Your task to perform on an android device: Open Youtube and go to the subscriptions tab Image 0: 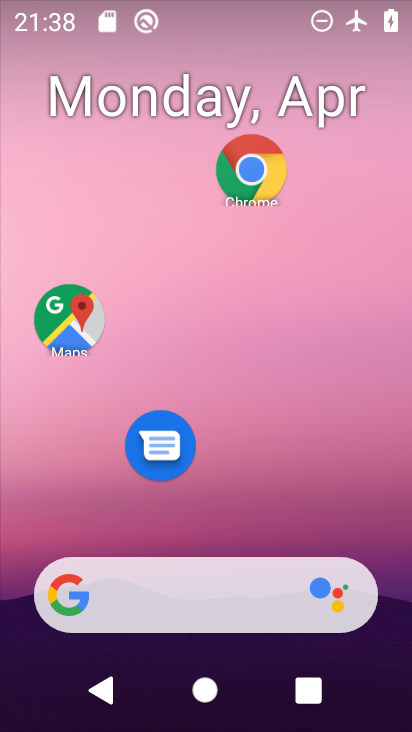
Step 0: drag from (220, 464) to (244, 119)
Your task to perform on an android device: Open Youtube and go to the subscriptions tab Image 1: 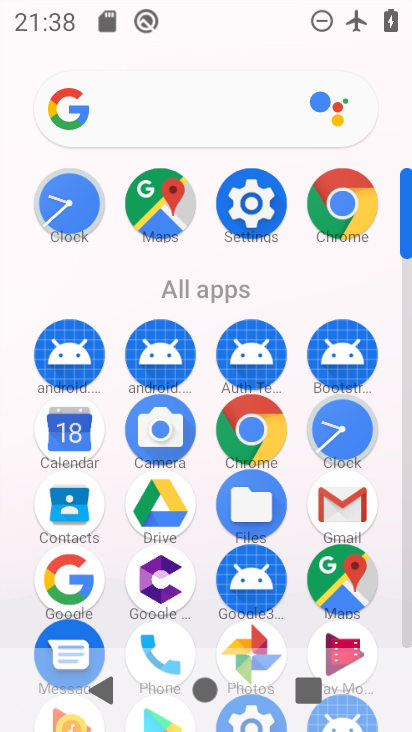
Step 1: drag from (206, 550) to (222, 168)
Your task to perform on an android device: Open Youtube and go to the subscriptions tab Image 2: 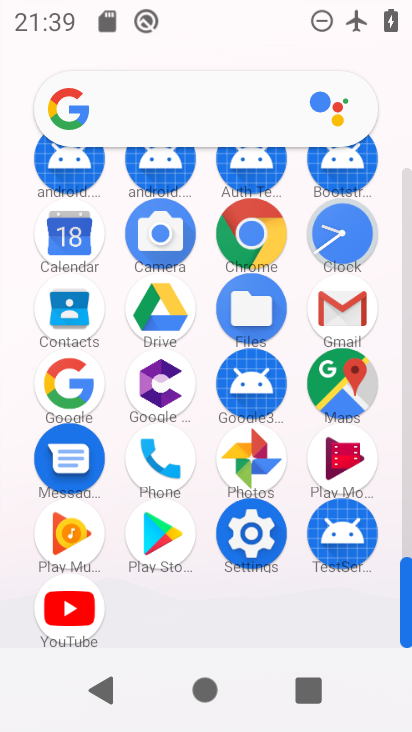
Step 2: click (64, 607)
Your task to perform on an android device: Open Youtube and go to the subscriptions tab Image 3: 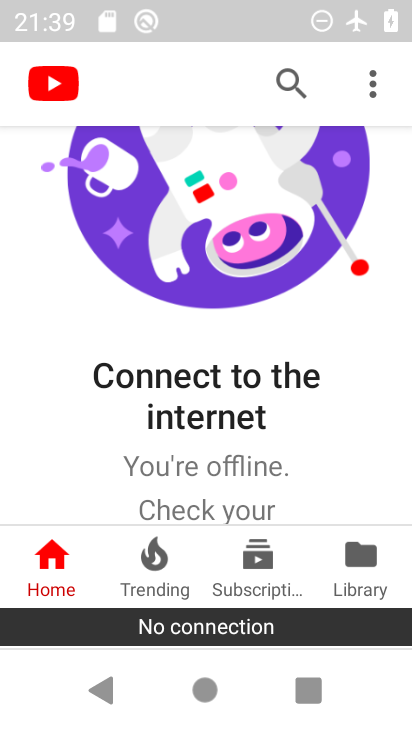
Step 3: click (255, 565)
Your task to perform on an android device: Open Youtube and go to the subscriptions tab Image 4: 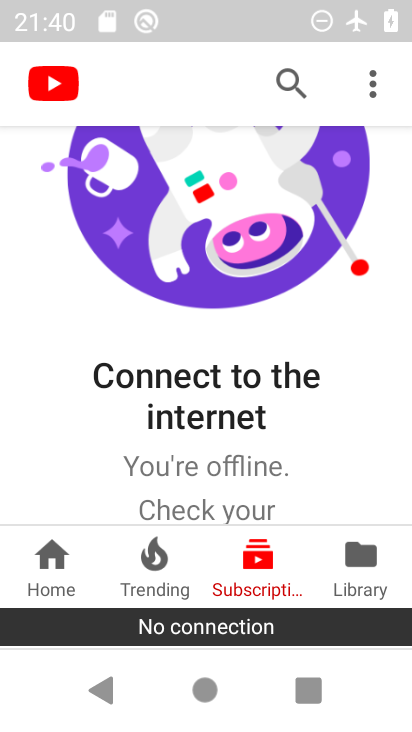
Step 4: task complete